Your task to perform on an android device: Toggle the flashlight Image 0: 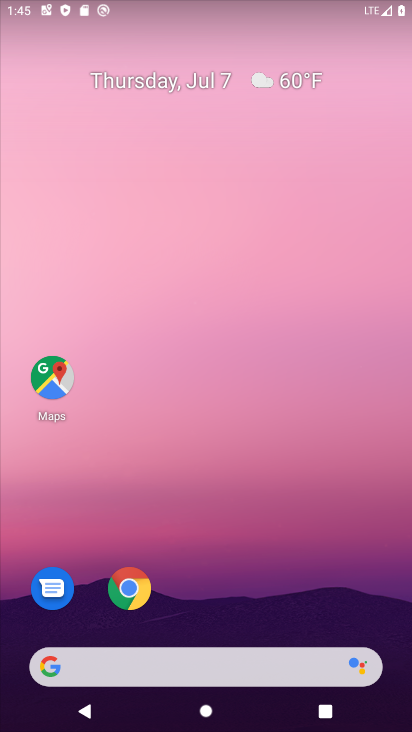
Step 0: drag from (279, 599) to (292, 120)
Your task to perform on an android device: Toggle the flashlight Image 1: 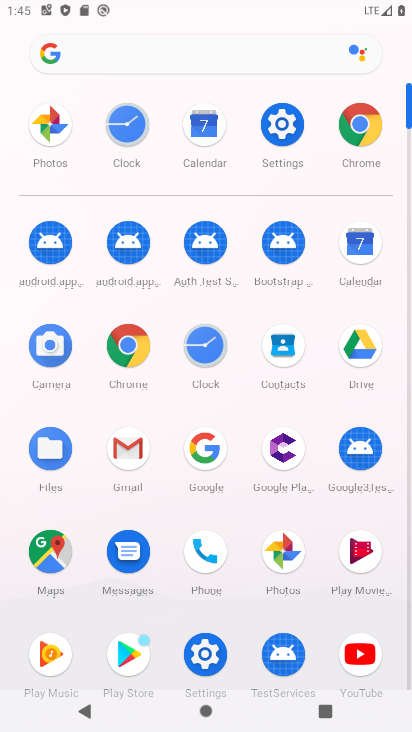
Step 1: click (257, 101)
Your task to perform on an android device: Toggle the flashlight Image 2: 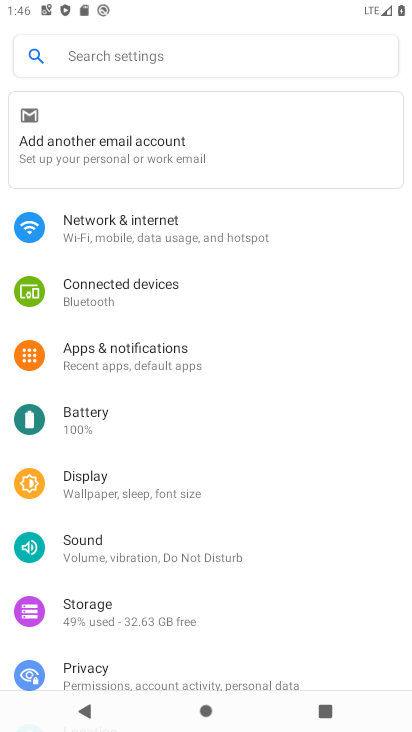
Step 2: task complete